Your task to perform on an android device: set an alarm Image 0: 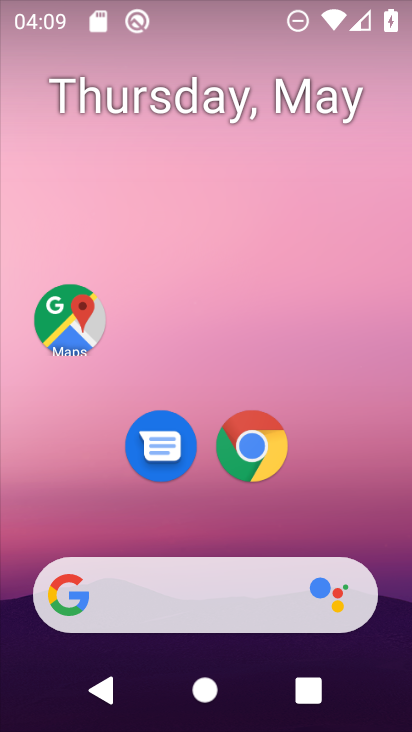
Step 0: press home button
Your task to perform on an android device: set an alarm Image 1: 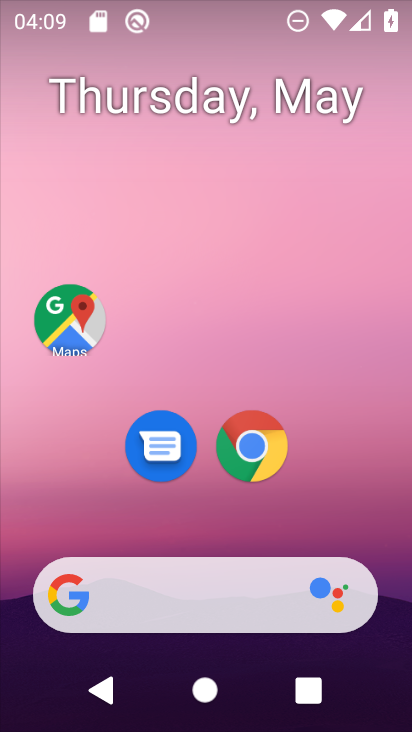
Step 1: drag from (317, 496) to (326, 13)
Your task to perform on an android device: set an alarm Image 2: 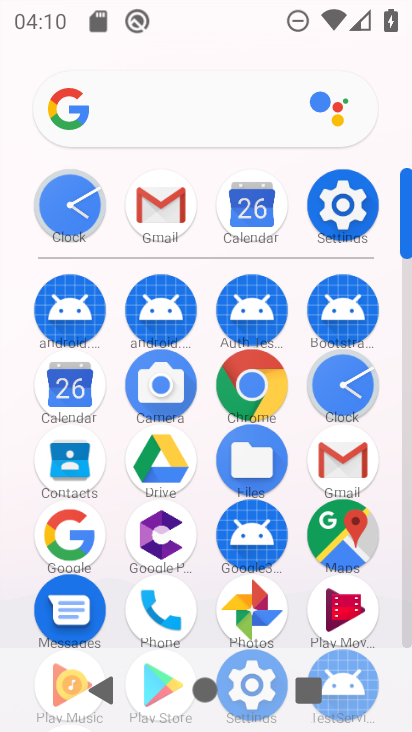
Step 2: click (62, 219)
Your task to perform on an android device: set an alarm Image 3: 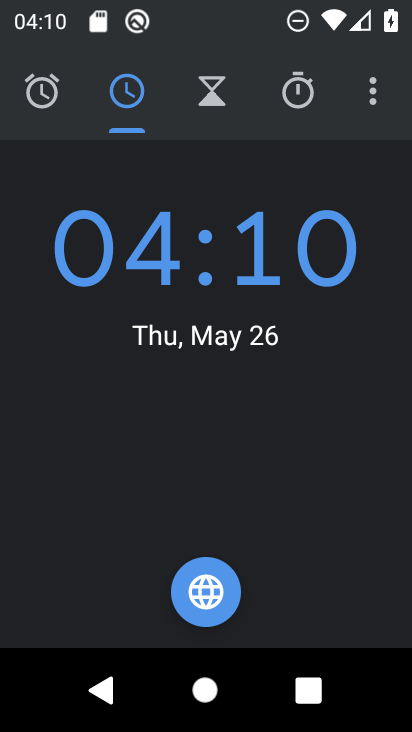
Step 3: click (38, 102)
Your task to perform on an android device: set an alarm Image 4: 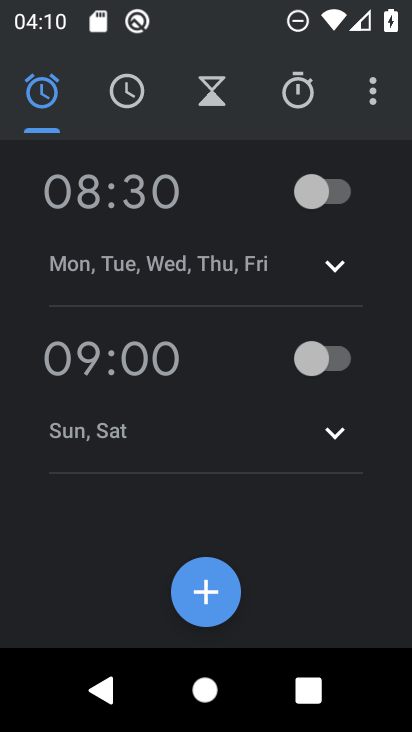
Step 4: click (212, 594)
Your task to perform on an android device: set an alarm Image 5: 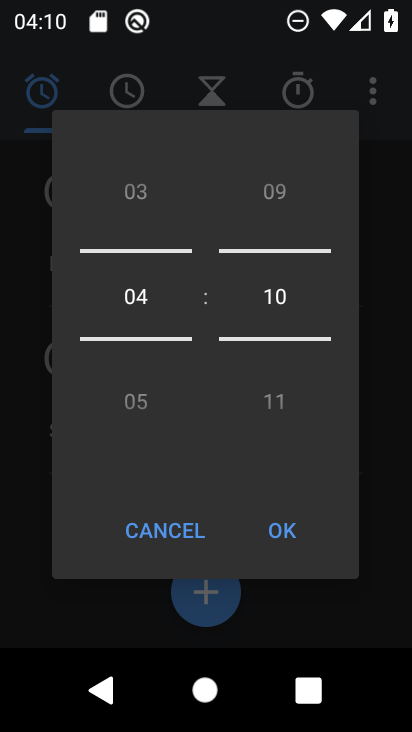
Step 5: click (275, 539)
Your task to perform on an android device: set an alarm Image 6: 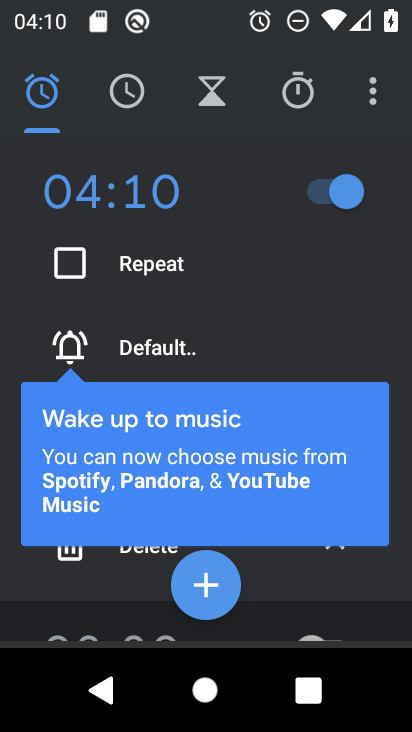
Step 6: task complete